Your task to perform on an android device: open app "Expedia: Hotels, Flights & Car" (install if not already installed) Image 0: 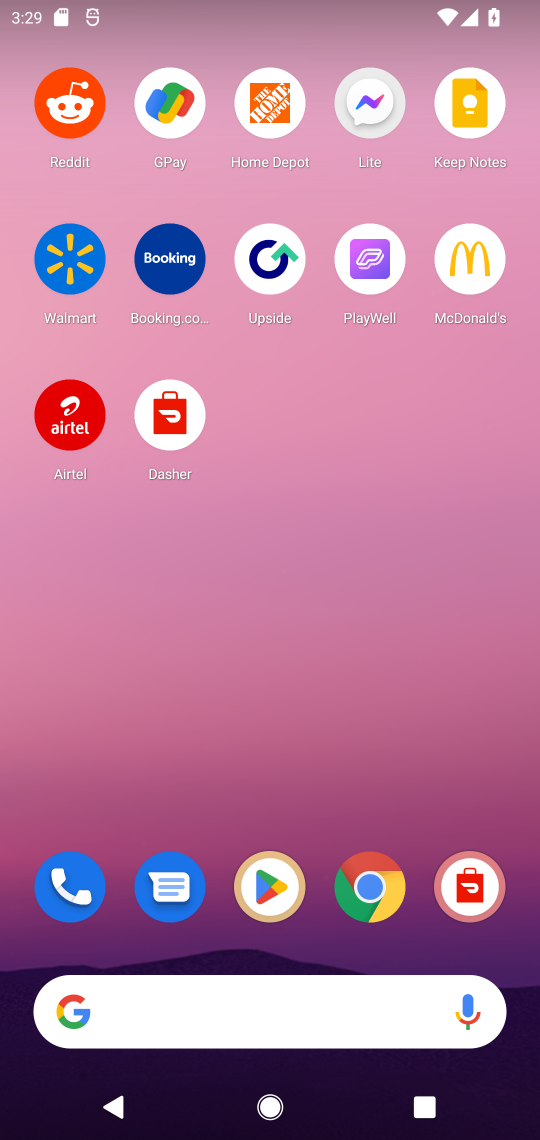
Step 0: click (271, 877)
Your task to perform on an android device: open app "Expedia: Hotels, Flights & Car" (install if not already installed) Image 1: 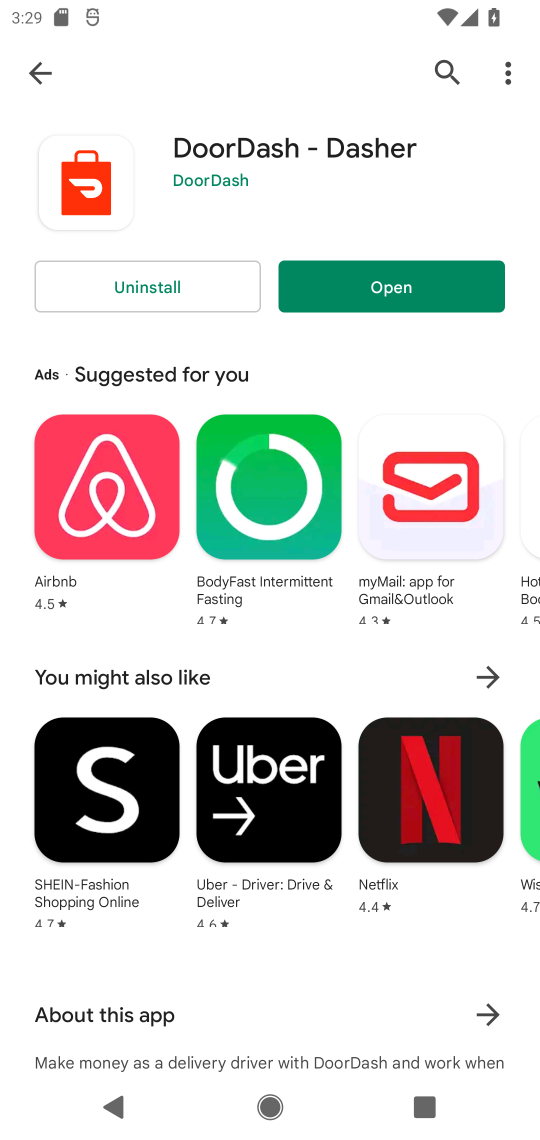
Step 1: click (40, 78)
Your task to perform on an android device: open app "Expedia: Hotels, Flights & Car" (install if not already installed) Image 2: 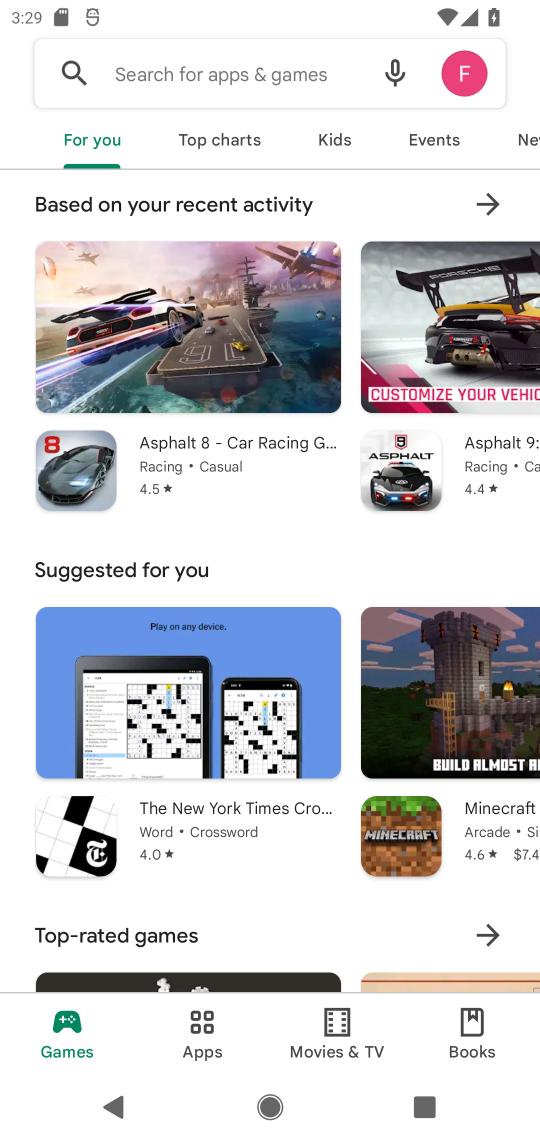
Step 2: click (236, 78)
Your task to perform on an android device: open app "Expedia: Hotels, Flights & Car" (install if not already installed) Image 3: 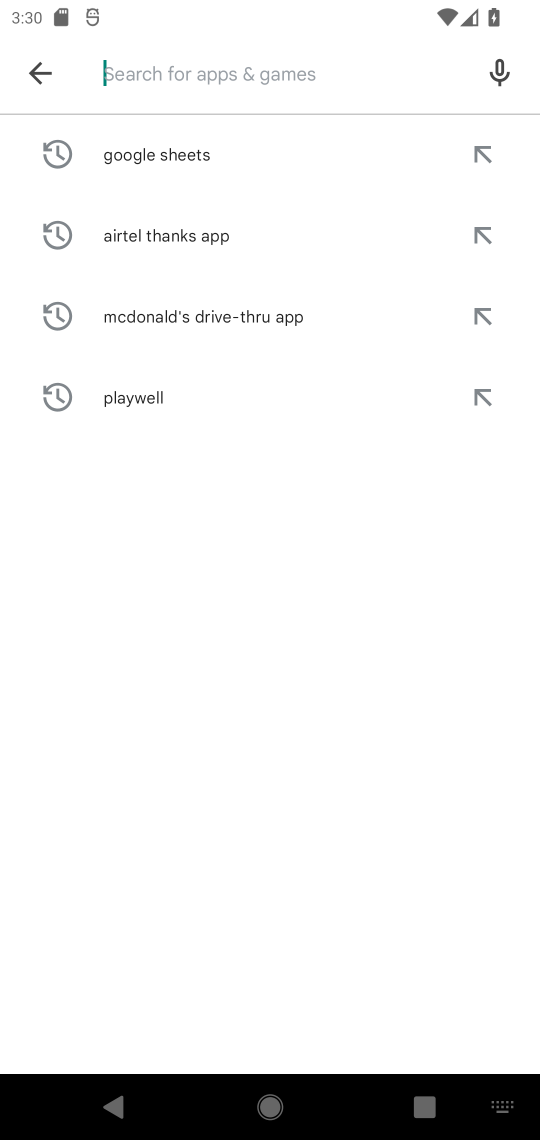
Step 3: type "Expedia: Hotels, Flights & Car"
Your task to perform on an android device: open app "Expedia: Hotels, Flights & Car" (install if not already installed) Image 4: 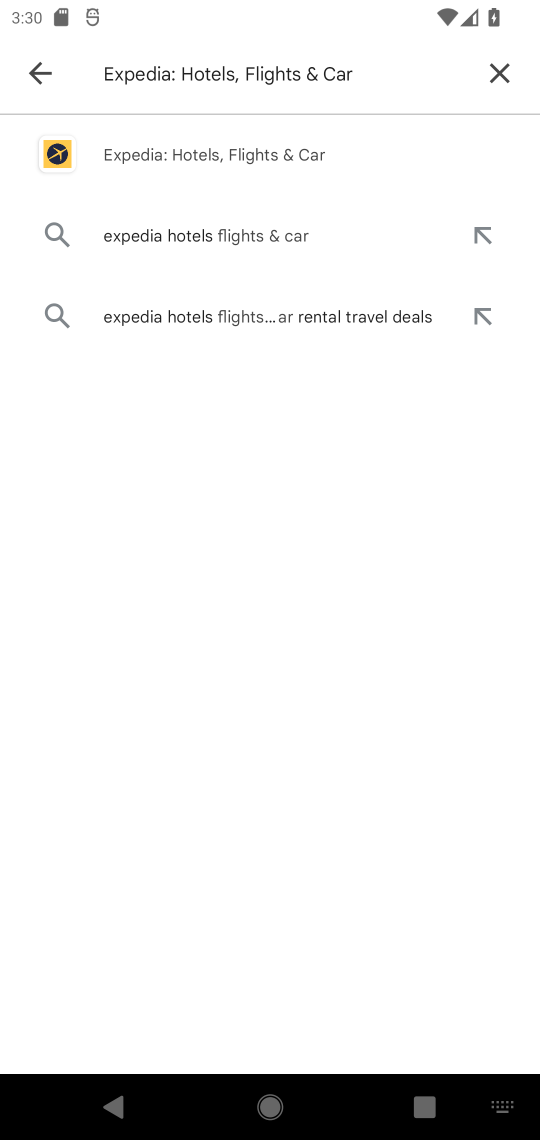
Step 4: click (190, 151)
Your task to perform on an android device: open app "Expedia: Hotels, Flights & Car" (install if not already installed) Image 5: 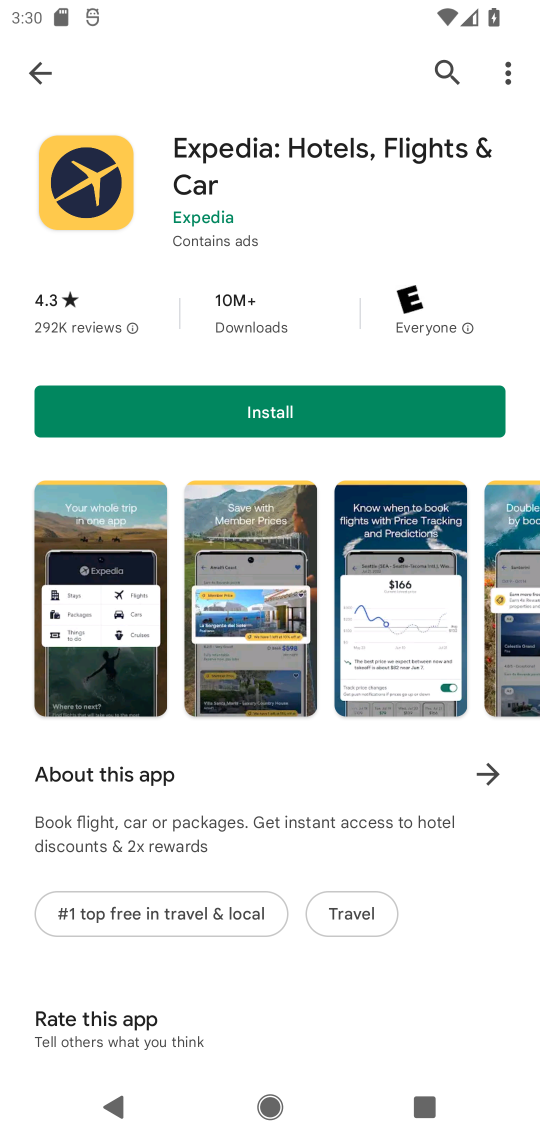
Step 5: click (260, 408)
Your task to perform on an android device: open app "Expedia: Hotels, Flights & Car" (install if not already installed) Image 6: 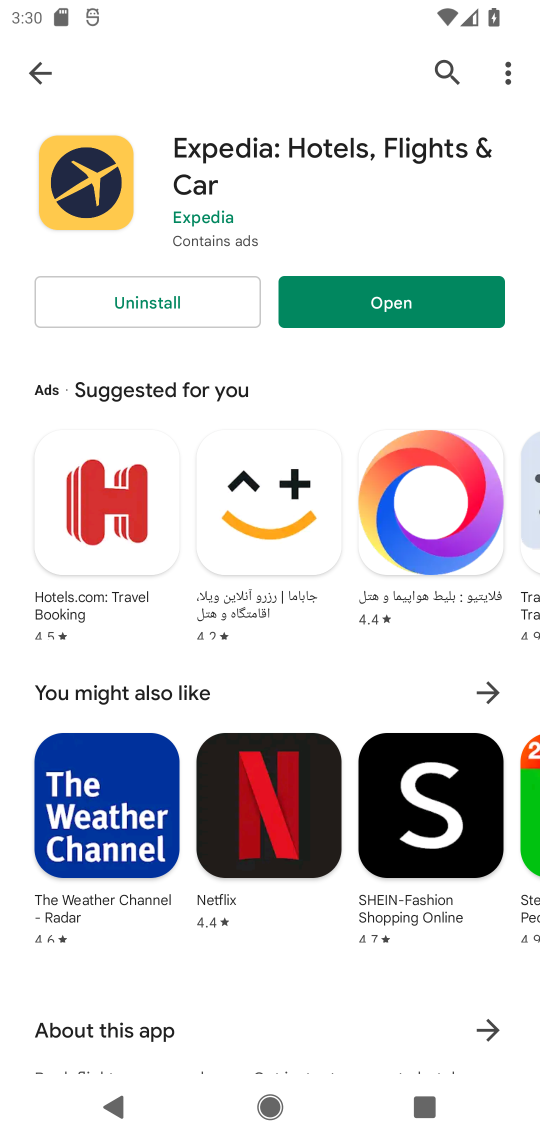
Step 6: click (370, 312)
Your task to perform on an android device: open app "Expedia: Hotels, Flights & Car" (install if not already installed) Image 7: 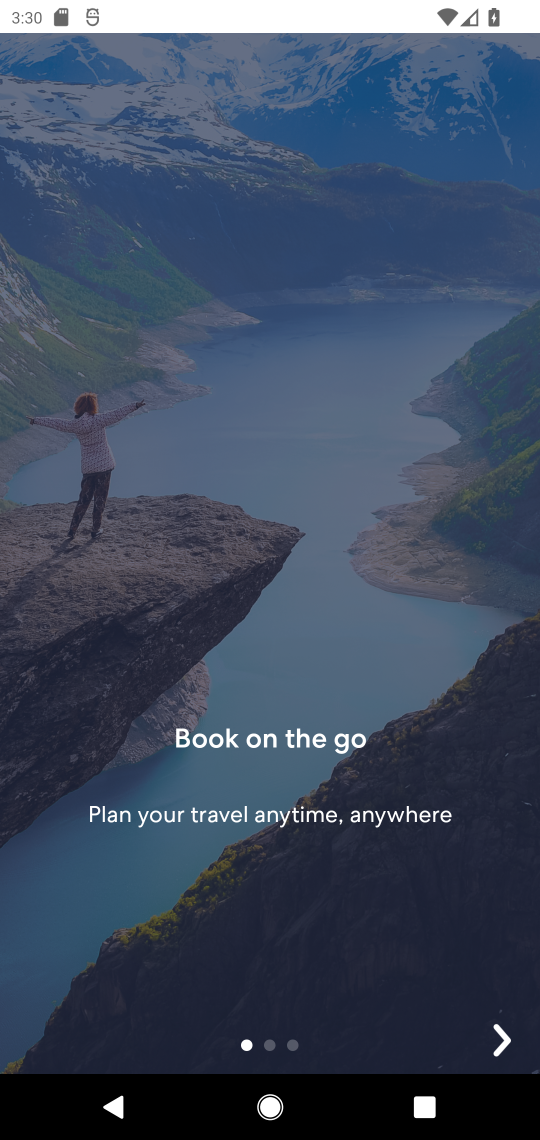
Step 7: task complete